Your task to perform on an android device: Check the weather Image 0: 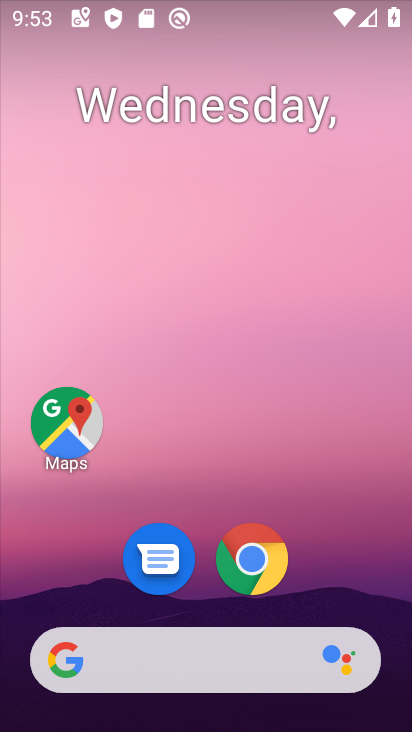
Step 0: click (267, 650)
Your task to perform on an android device: Check the weather Image 1: 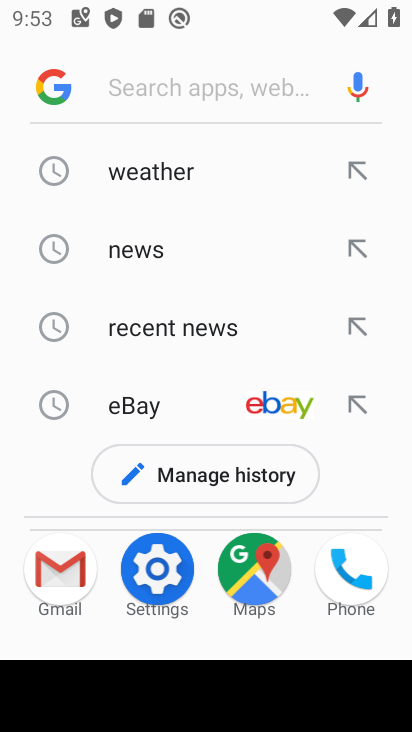
Step 1: click (165, 174)
Your task to perform on an android device: Check the weather Image 2: 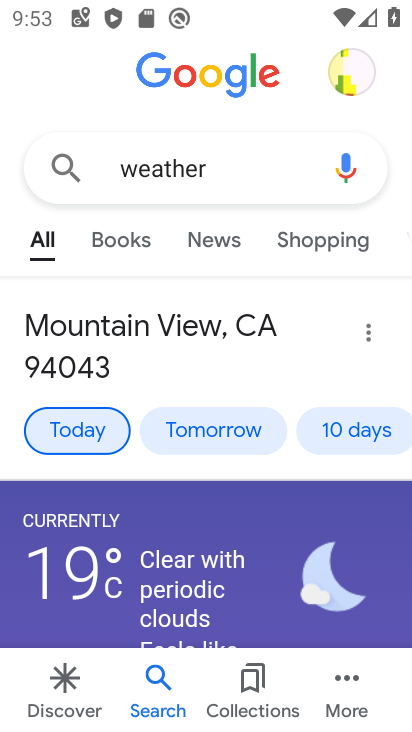
Step 2: click (81, 427)
Your task to perform on an android device: Check the weather Image 3: 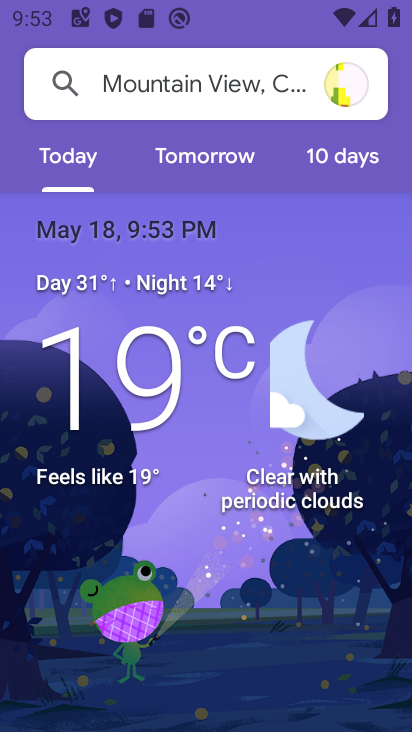
Step 3: task complete